Your task to perform on an android device: Open calendar and show me the fourth week of next month Image 0: 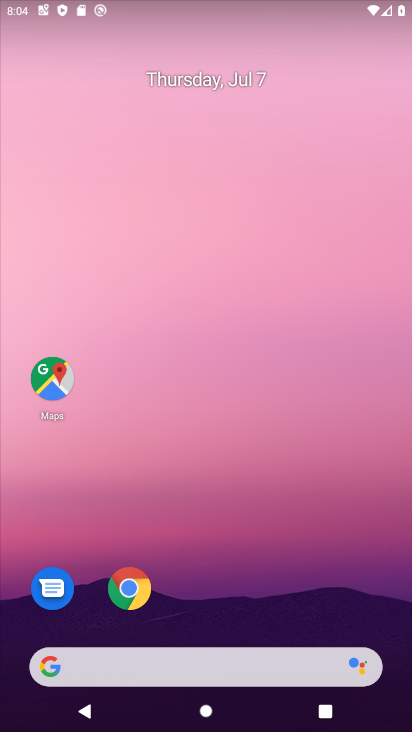
Step 0: drag from (17, 703) to (346, 40)
Your task to perform on an android device: Open calendar and show me the fourth week of next month Image 1: 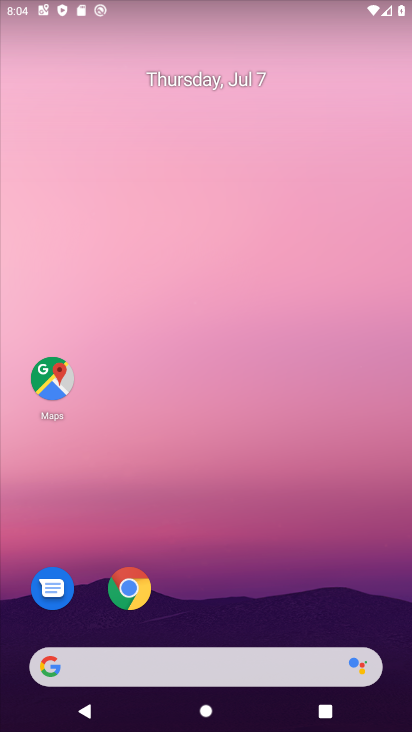
Step 1: drag from (47, 709) to (314, 3)
Your task to perform on an android device: Open calendar and show me the fourth week of next month Image 2: 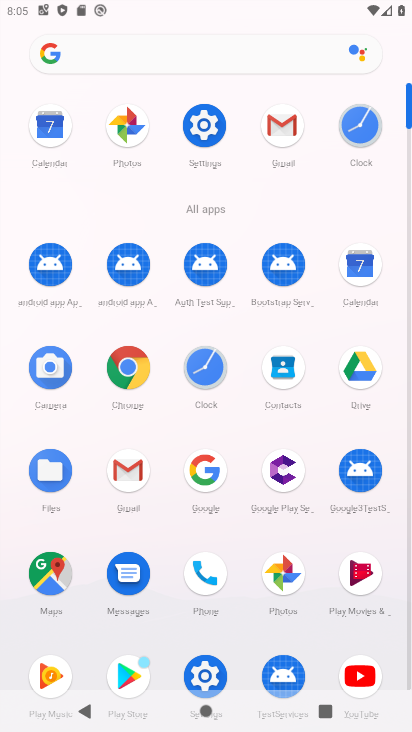
Step 2: click (354, 277)
Your task to perform on an android device: Open calendar and show me the fourth week of next month Image 3: 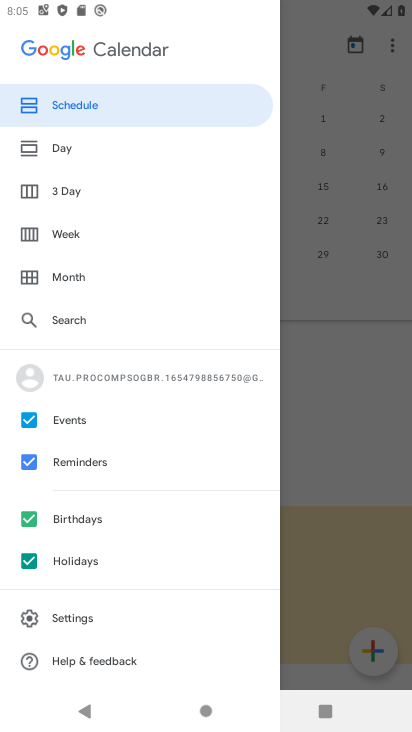
Step 3: click (308, 365)
Your task to perform on an android device: Open calendar and show me the fourth week of next month Image 4: 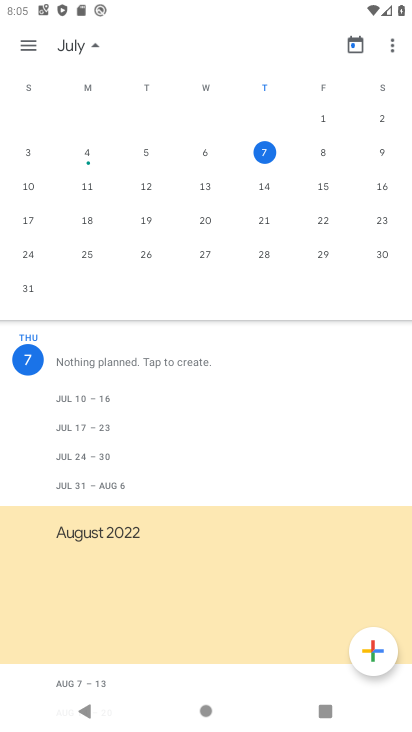
Step 4: drag from (367, 146) to (7, 264)
Your task to perform on an android device: Open calendar and show me the fourth week of next month Image 5: 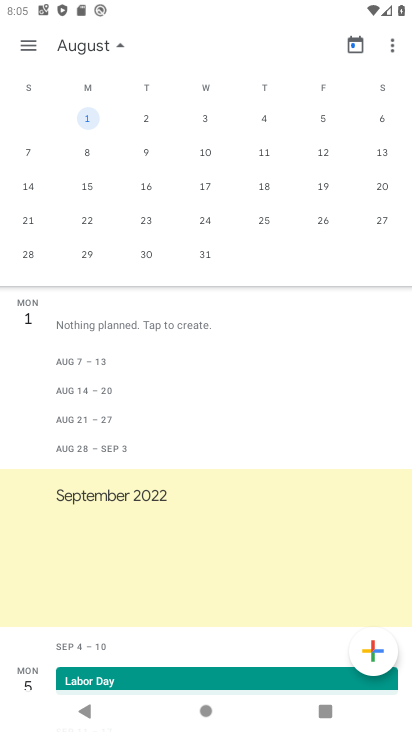
Step 5: click (84, 219)
Your task to perform on an android device: Open calendar and show me the fourth week of next month Image 6: 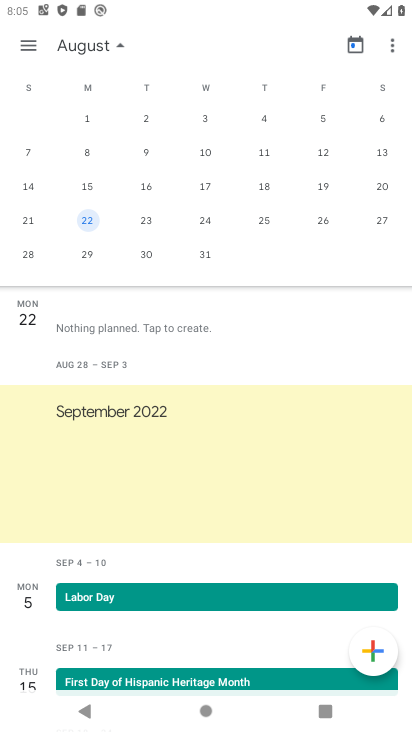
Step 6: task complete